Your task to perform on an android device: clear history in the chrome app Image 0: 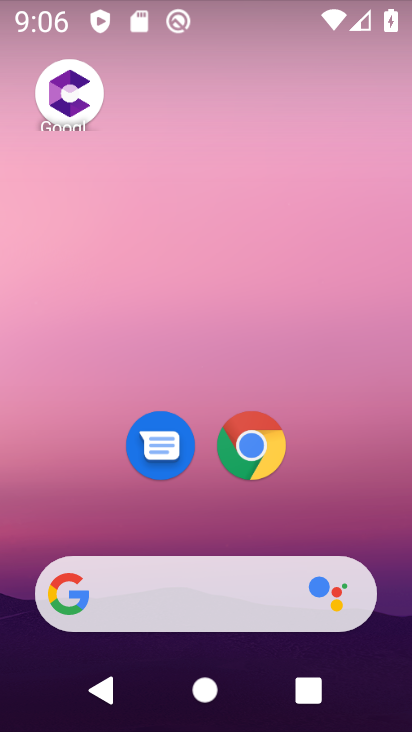
Step 0: click (251, 441)
Your task to perform on an android device: clear history in the chrome app Image 1: 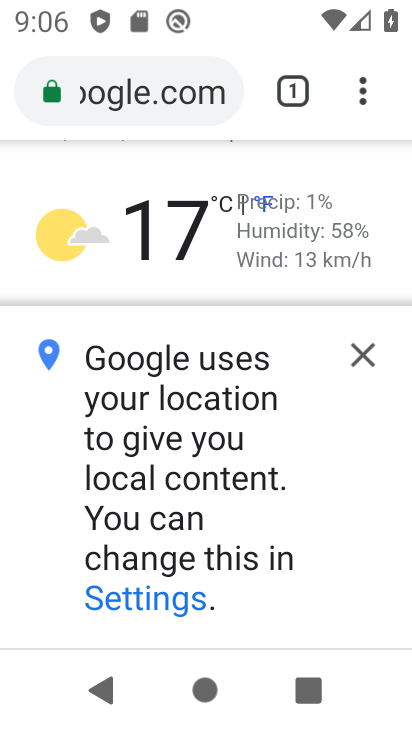
Step 1: click (362, 99)
Your task to perform on an android device: clear history in the chrome app Image 2: 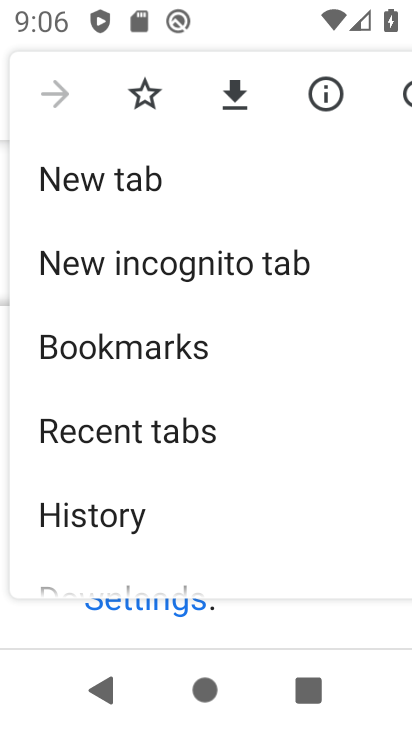
Step 2: click (105, 529)
Your task to perform on an android device: clear history in the chrome app Image 3: 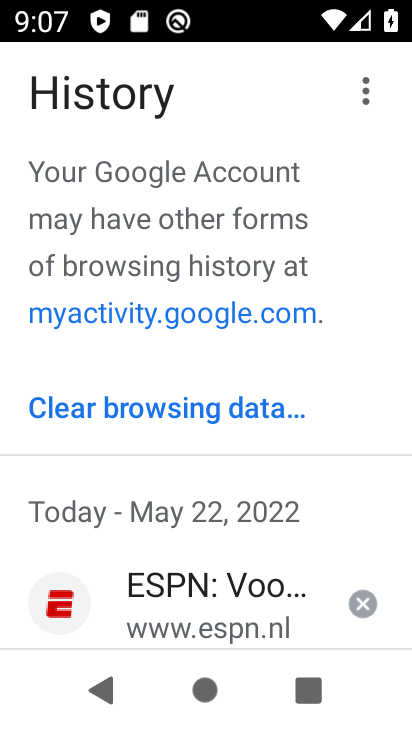
Step 3: click (247, 423)
Your task to perform on an android device: clear history in the chrome app Image 4: 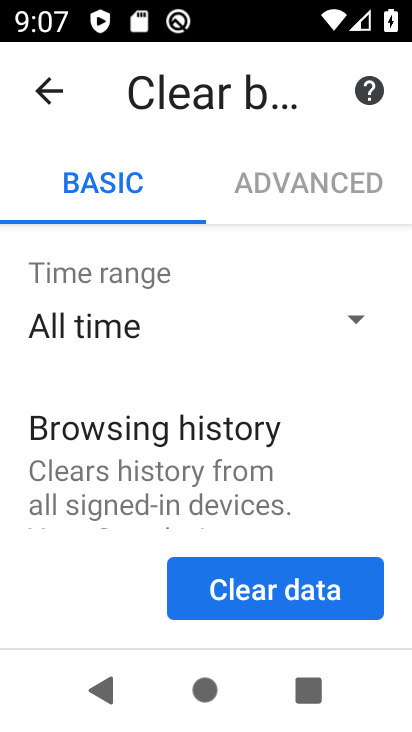
Step 4: drag from (266, 468) to (276, 220)
Your task to perform on an android device: clear history in the chrome app Image 5: 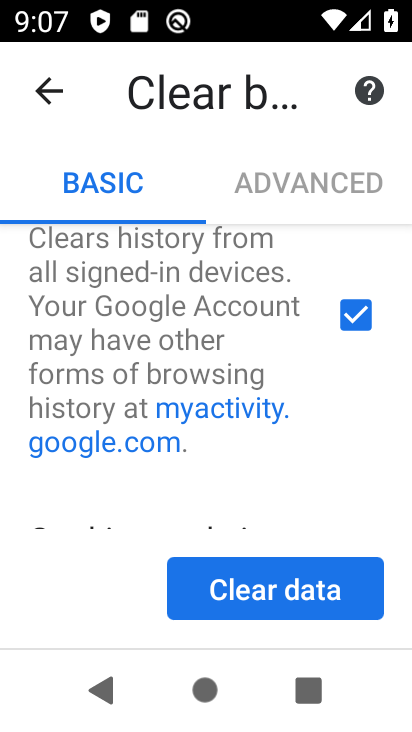
Step 5: click (307, 592)
Your task to perform on an android device: clear history in the chrome app Image 6: 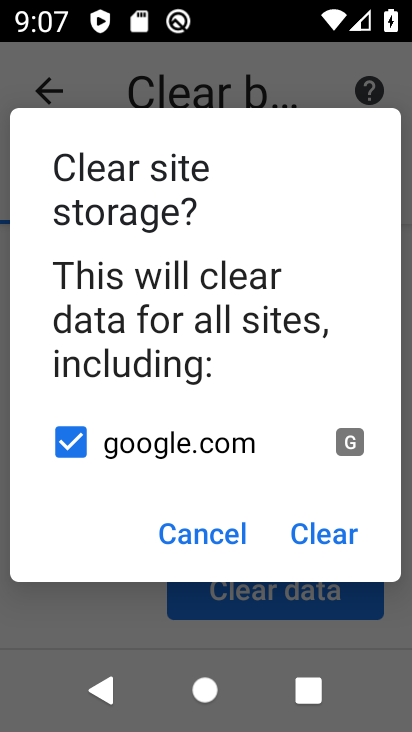
Step 6: task complete